Your task to perform on an android device: clear history in the chrome app Image 0: 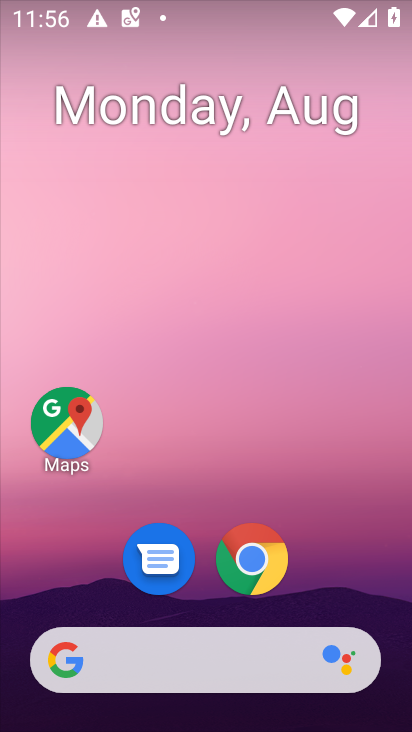
Step 0: click (241, 37)
Your task to perform on an android device: clear history in the chrome app Image 1: 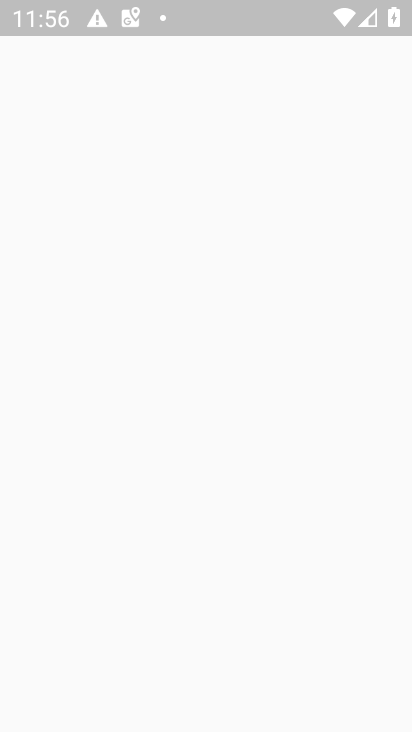
Step 1: drag from (209, 616) to (210, 307)
Your task to perform on an android device: clear history in the chrome app Image 2: 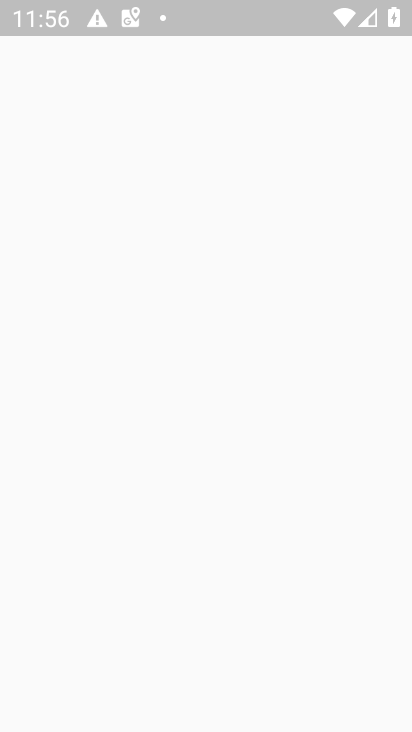
Step 2: press home button
Your task to perform on an android device: clear history in the chrome app Image 3: 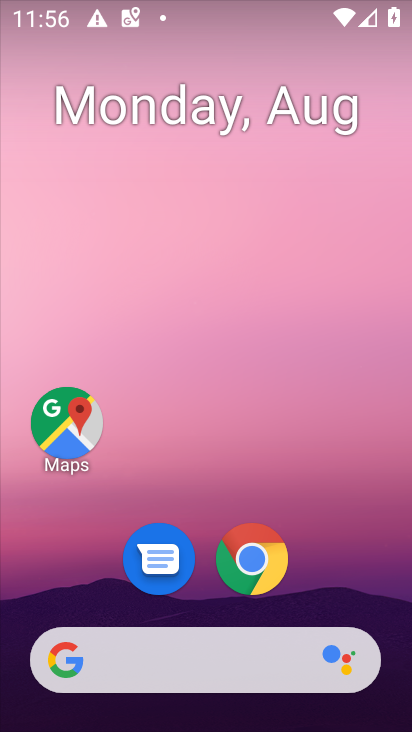
Step 3: click (249, 550)
Your task to perform on an android device: clear history in the chrome app Image 4: 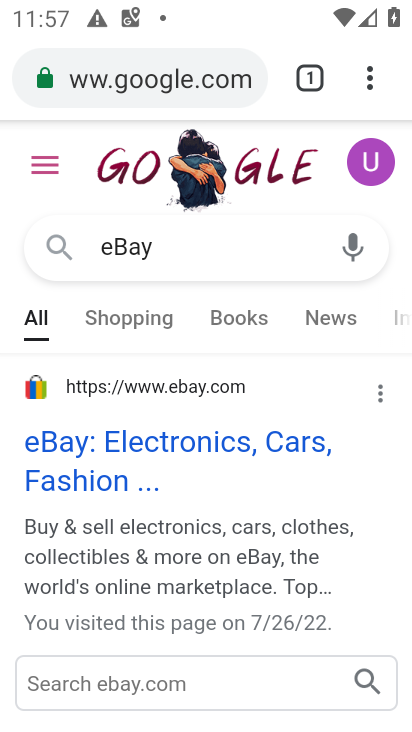
Step 4: click (376, 72)
Your task to perform on an android device: clear history in the chrome app Image 5: 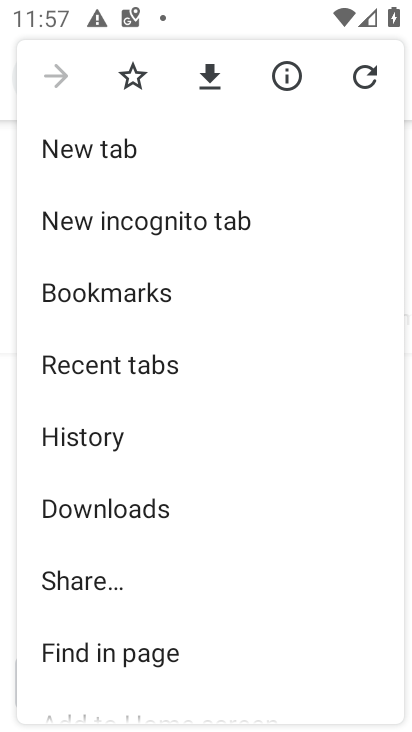
Step 5: click (112, 437)
Your task to perform on an android device: clear history in the chrome app Image 6: 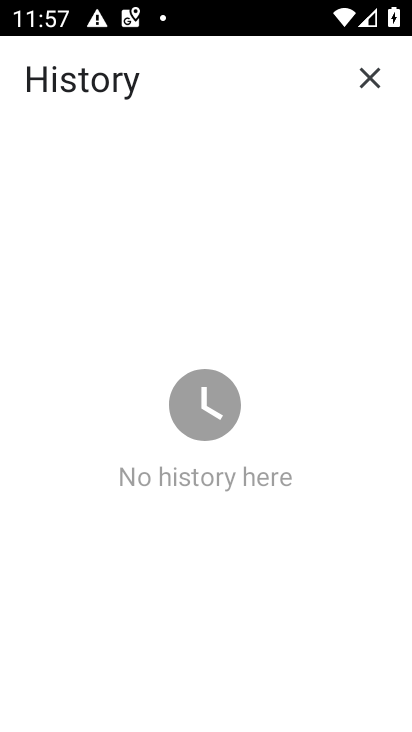
Step 6: task complete